Your task to perform on an android device: open the mobile data screen to see how much data has been used Image 0: 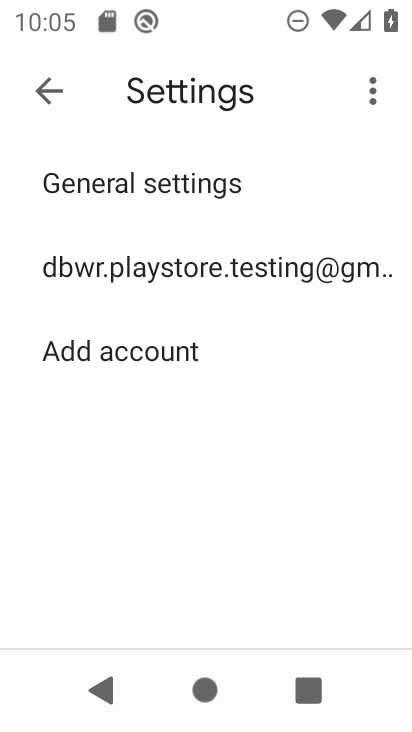
Step 0: press home button
Your task to perform on an android device: open the mobile data screen to see how much data has been used Image 1: 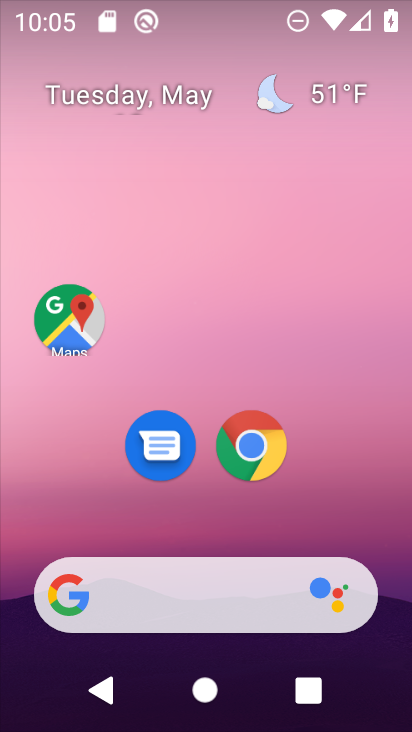
Step 1: drag from (187, 619) to (160, 136)
Your task to perform on an android device: open the mobile data screen to see how much data has been used Image 2: 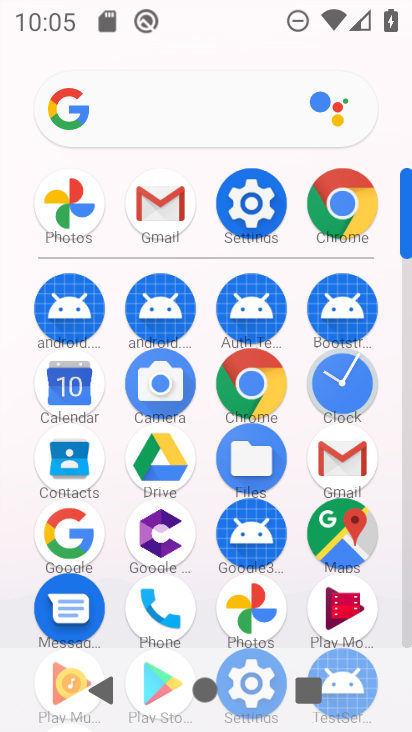
Step 2: click (241, 222)
Your task to perform on an android device: open the mobile data screen to see how much data has been used Image 3: 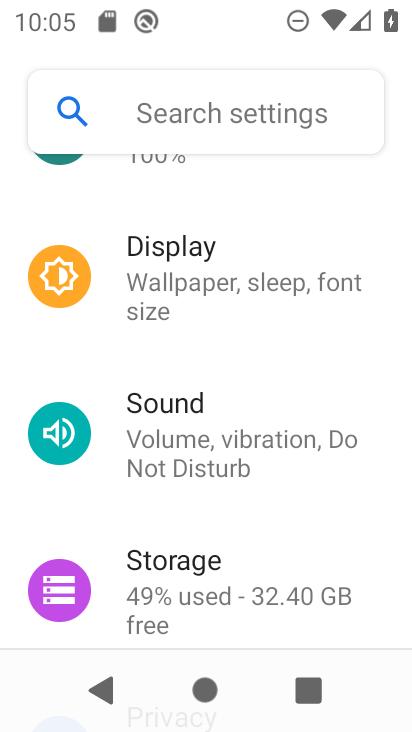
Step 3: drag from (180, 305) to (177, 637)
Your task to perform on an android device: open the mobile data screen to see how much data has been used Image 4: 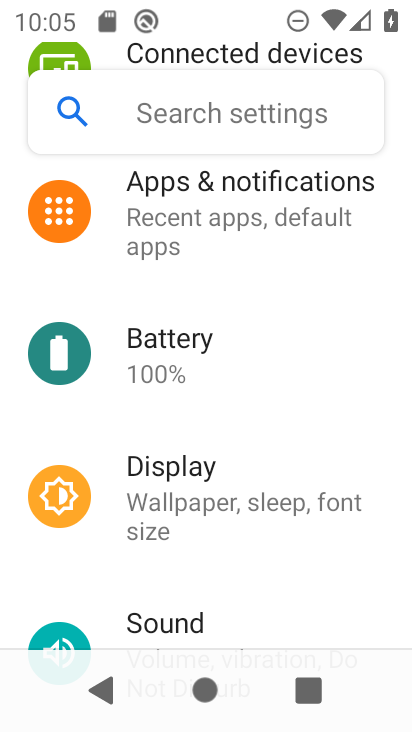
Step 4: drag from (228, 207) to (316, 478)
Your task to perform on an android device: open the mobile data screen to see how much data has been used Image 5: 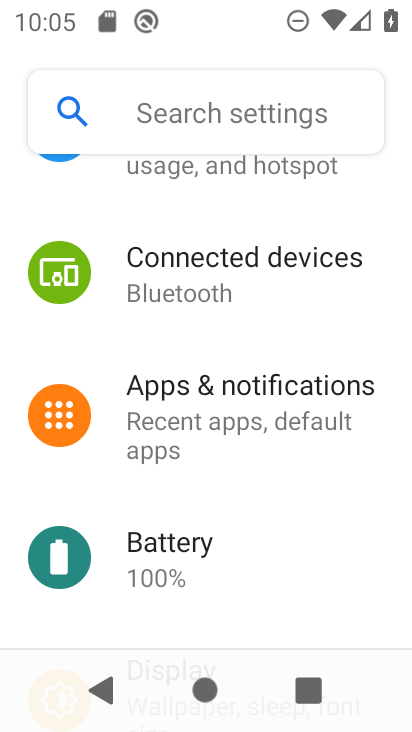
Step 5: drag from (206, 260) to (213, 614)
Your task to perform on an android device: open the mobile data screen to see how much data has been used Image 6: 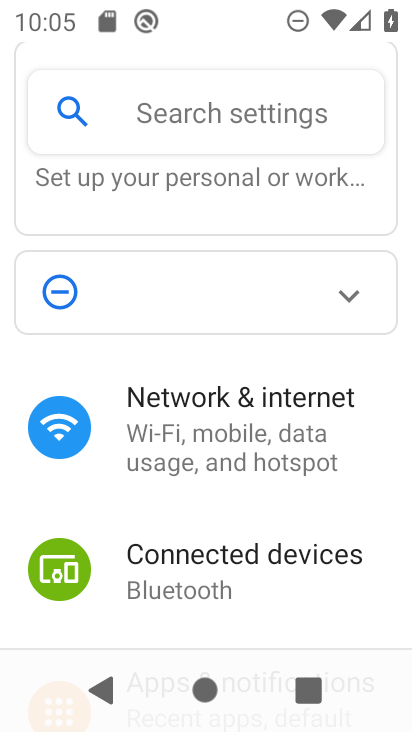
Step 6: click (180, 443)
Your task to perform on an android device: open the mobile data screen to see how much data has been used Image 7: 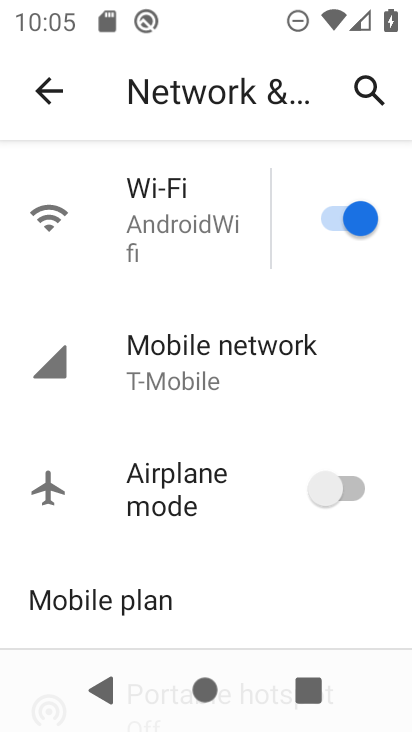
Step 7: click (222, 361)
Your task to perform on an android device: open the mobile data screen to see how much data has been used Image 8: 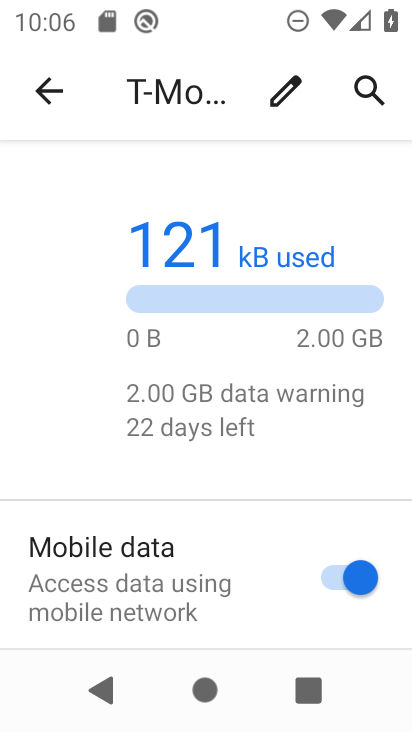
Step 8: task complete